Your task to perform on an android device: turn vacation reply on in the gmail app Image 0: 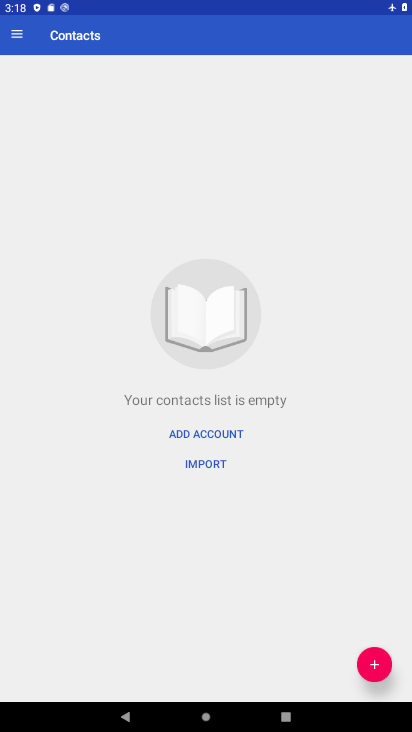
Step 0: press home button
Your task to perform on an android device: turn vacation reply on in the gmail app Image 1: 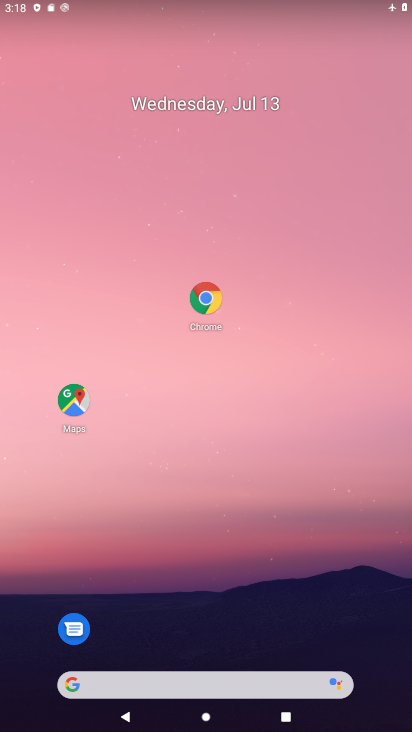
Step 1: drag from (195, 584) to (238, 264)
Your task to perform on an android device: turn vacation reply on in the gmail app Image 2: 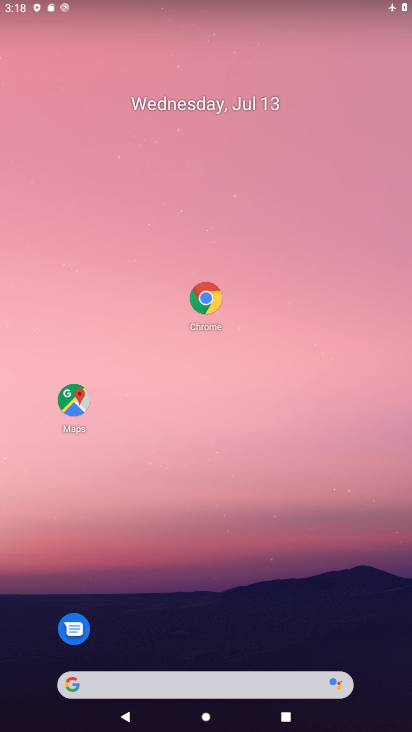
Step 2: drag from (241, 547) to (330, 258)
Your task to perform on an android device: turn vacation reply on in the gmail app Image 3: 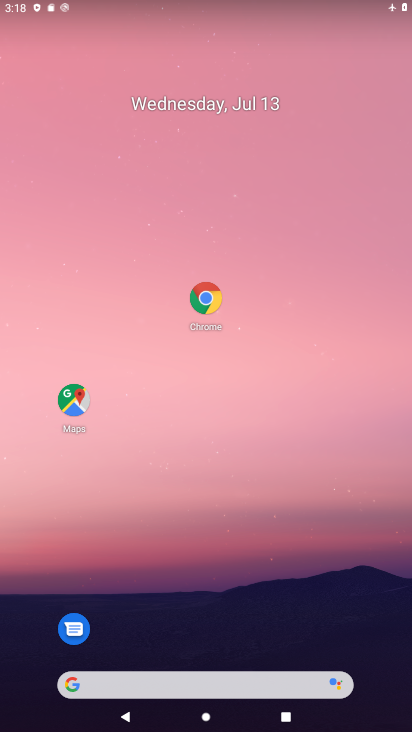
Step 3: drag from (246, 649) to (318, 85)
Your task to perform on an android device: turn vacation reply on in the gmail app Image 4: 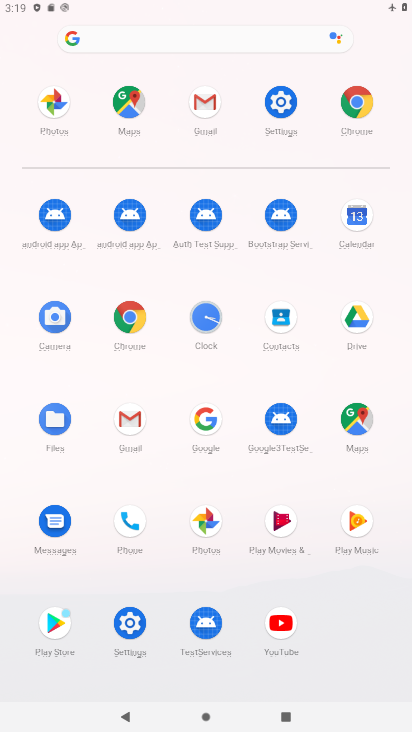
Step 4: click (118, 413)
Your task to perform on an android device: turn vacation reply on in the gmail app Image 5: 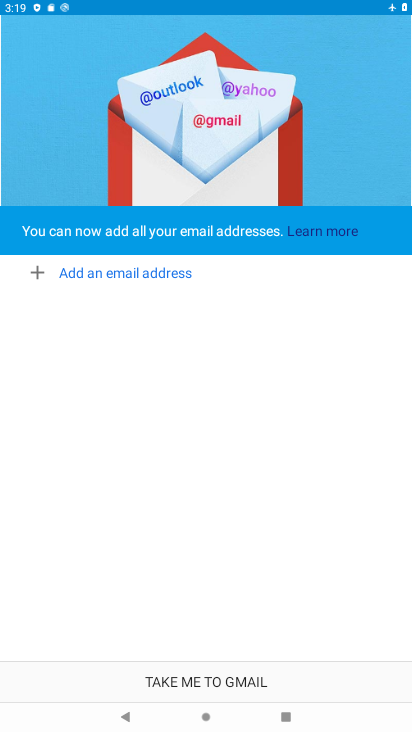
Step 5: click (229, 650)
Your task to perform on an android device: turn vacation reply on in the gmail app Image 6: 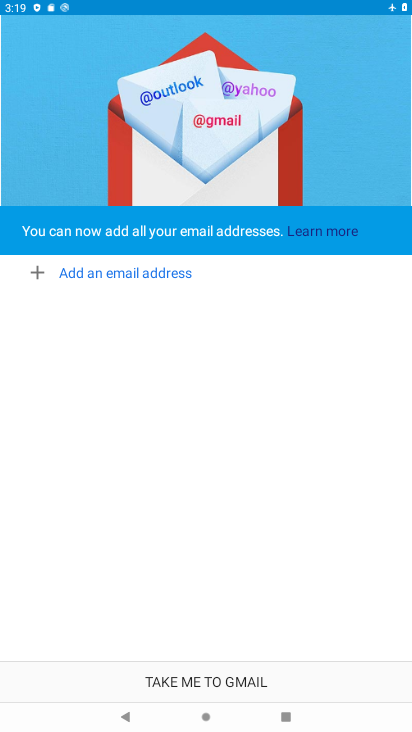
Step 6: click (217, 675)
Your task to perform on an android device: turn vacation reply on in the gmail app Image 7: 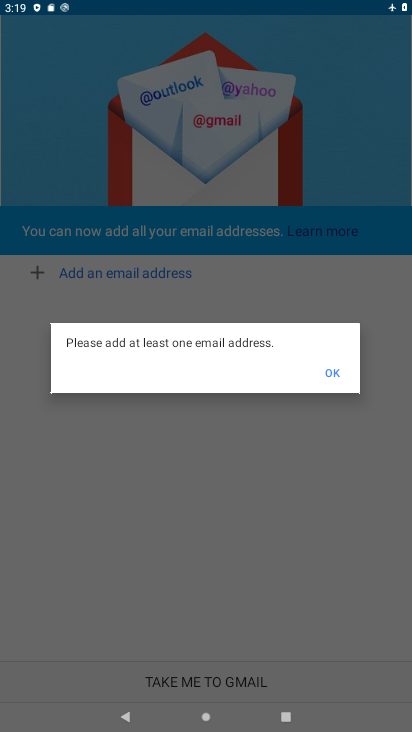
Step 7: click (325, 374)
Your task to perform on an android device: turn vacation reply on in the gmail app Image 8: 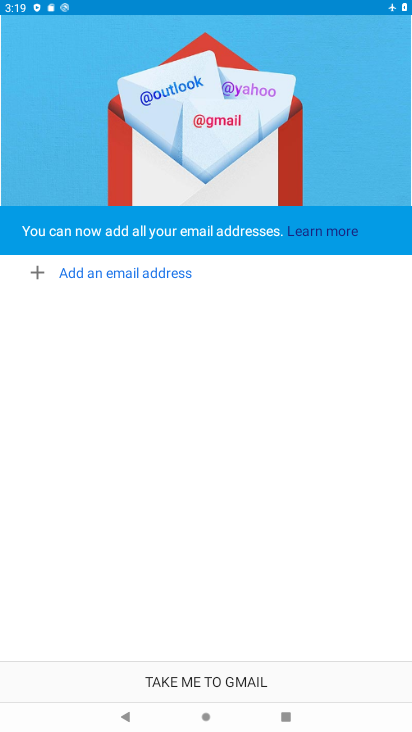
Step 8: task complete